Your task to perform on an android device: change your default location settings in chrome Image 0: 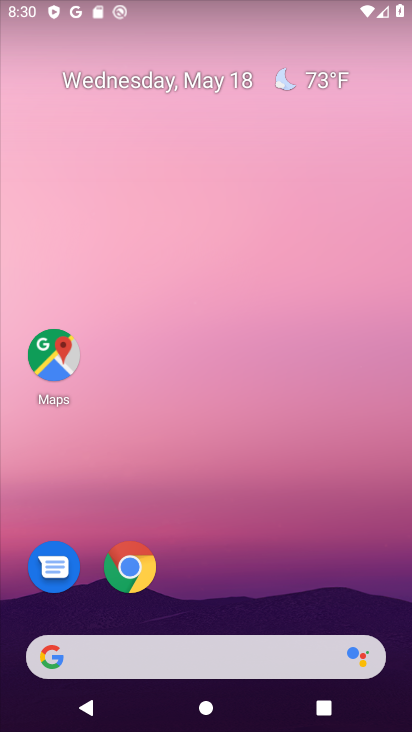
Step 0: drag from (254, 553) to (203, 30)
Your task to perform on an android device: change your default location settings in chrome Image 1: 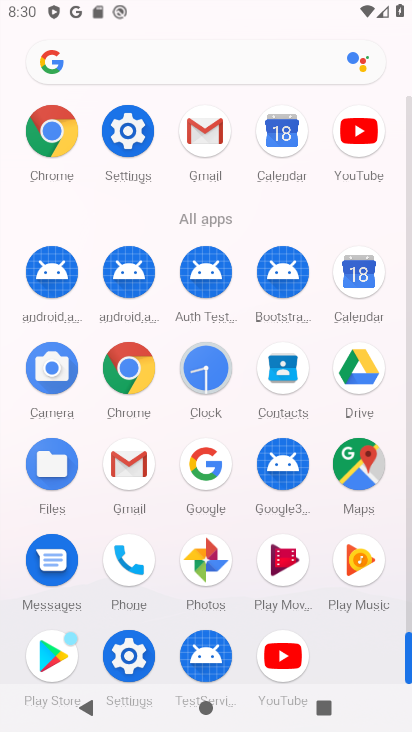
Step 1: drag from (10, 599) to (9, 227)
Your task to perform on an android device: change your default location settings in chrome Image 2: 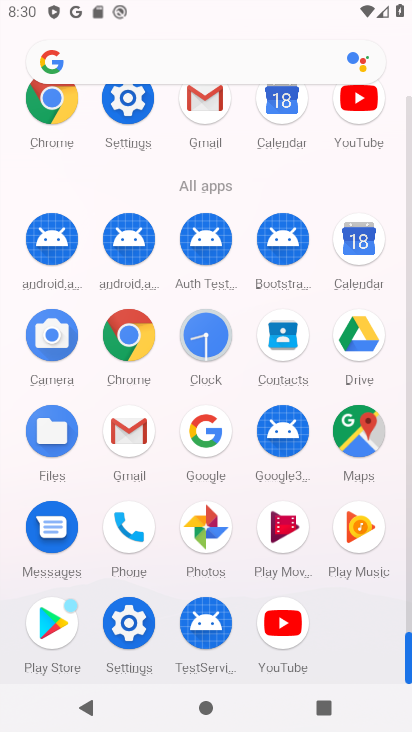
Step 2: click (127, 335)
Your task to perform on an android device: change your default location settings in chrome Image 3: 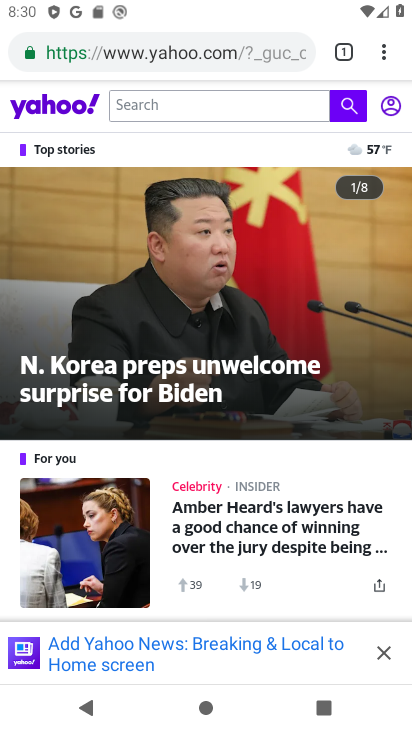
Step 3: drag from (382, 56) to (223, 600)
Your task to perform on an android device: change your default location settings in chrome Image 4: 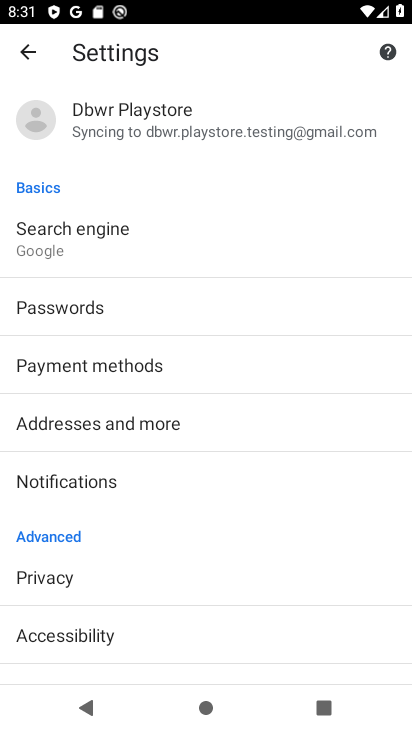
Step 4: drag from (205, 554) to (240, 175)
Your task to perform on an android device: change your default location settings in chrome Image 5: 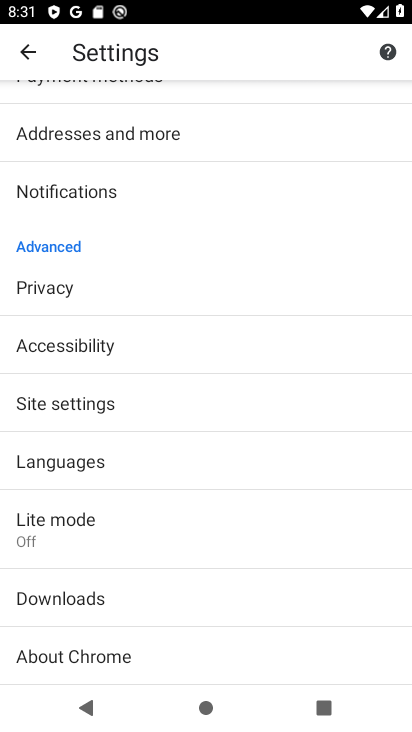
Step 5: drag from (224, 601) to (251, 275)
Your task to perform on an android device: change your default location settings in chrome Image 6: 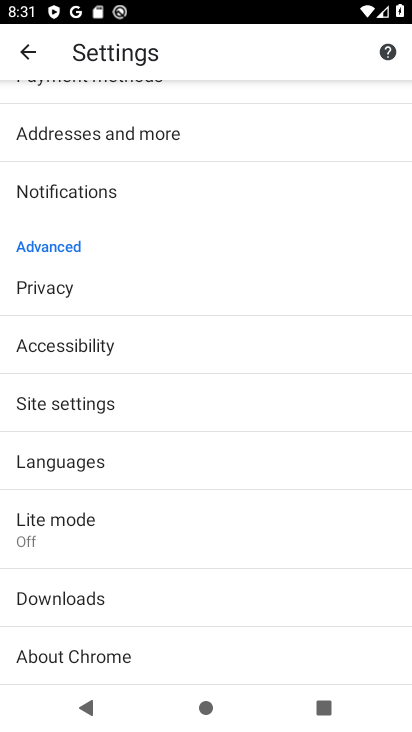
Step 6: drag from (193, 601) to (189, 277)
Your task to perform on an android device: change your default location settings in chrome Image 7: 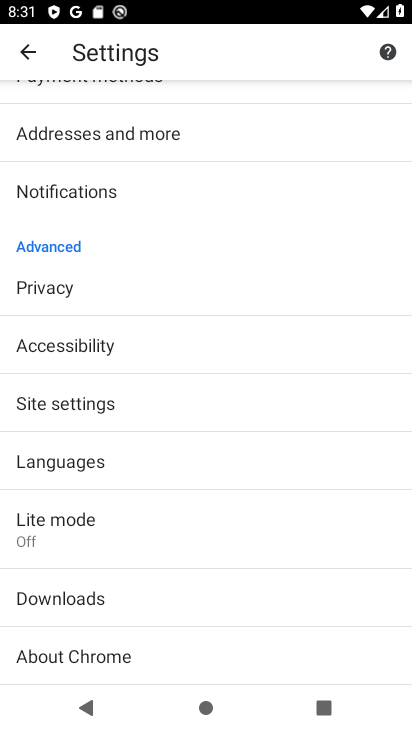
Step 7: drag from (190, 282) to (190, 646)
Your task to perform on an android device: change your default location settings in chrome Image 8: 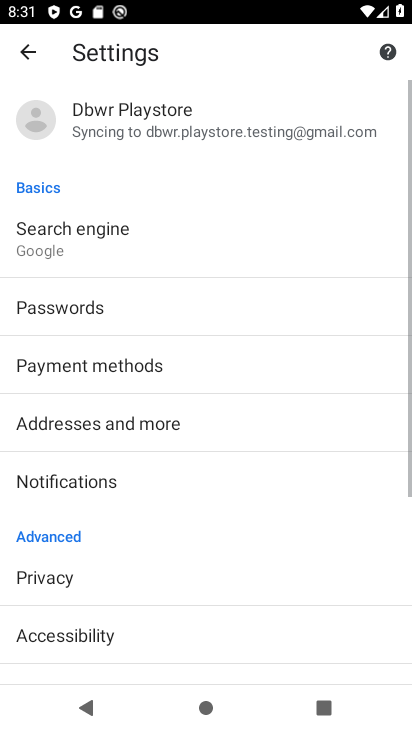
Step 8: drag from (233, 634) to (240, 309)
Your task to perform on an android device: change your default location settings in chrome Image 9: 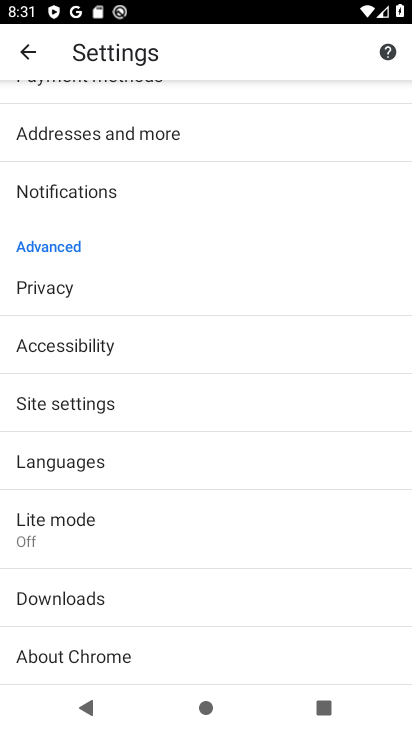
Step 9: click (75, 398)
Your task to perform on an android device: change your default location settings in chrome Image 10: 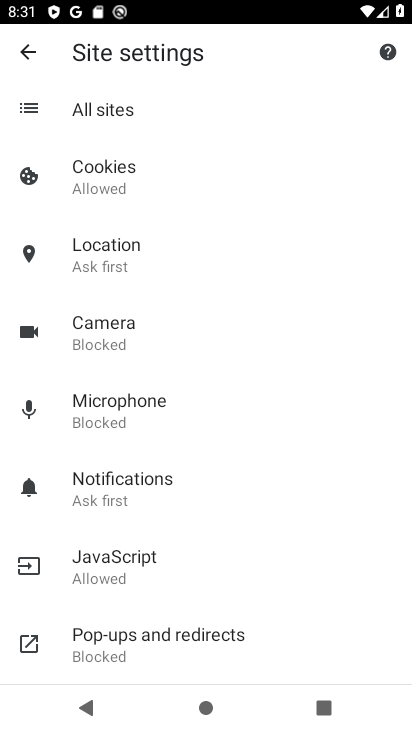
Step 10: click (102, 268)
Your task to perform on an android device: change your default location settings in chrome Image 11: 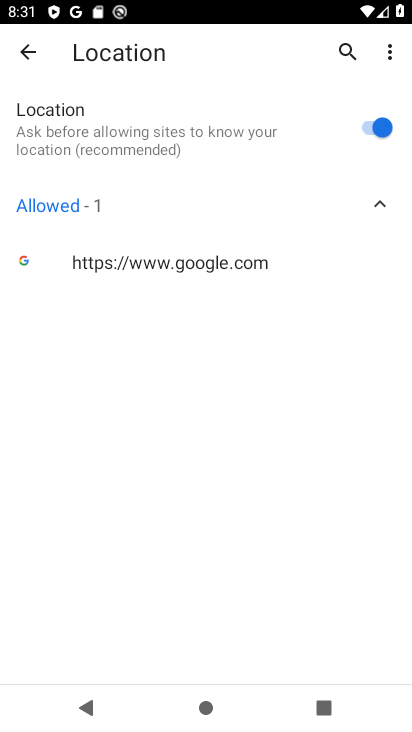
Step 11: task complete